Your task to perform on an android device: Do I have any events this weekend? Image 0: 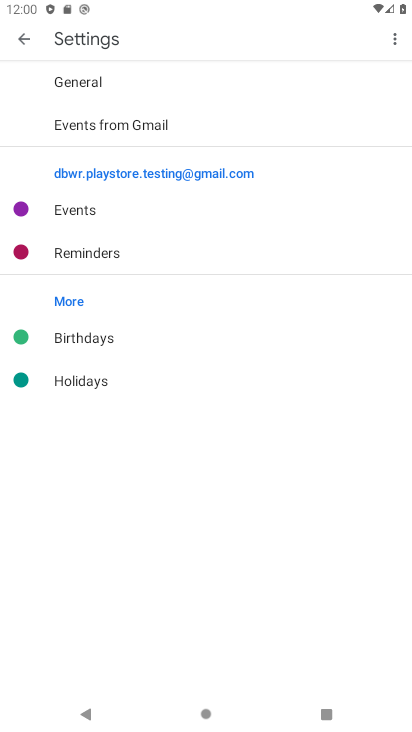
Step 0: press home button
Your task to perform on an android device: Do I have any events this weekend? Image 1: 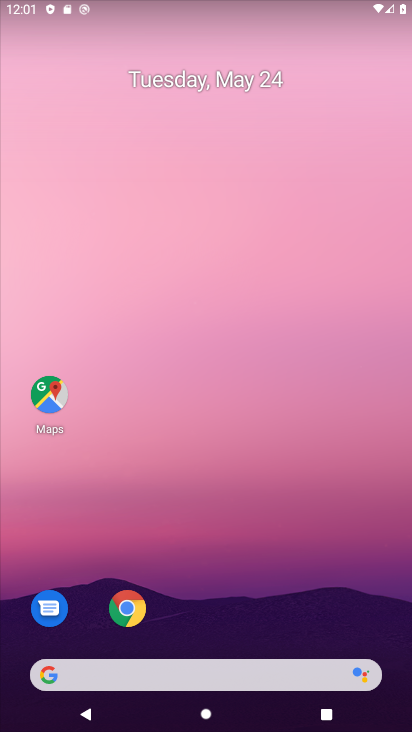
Step 1: drag from (227, 702) to (215, 287)
Your task to perform on an android device: Do I have any events this weekend? Image 2: 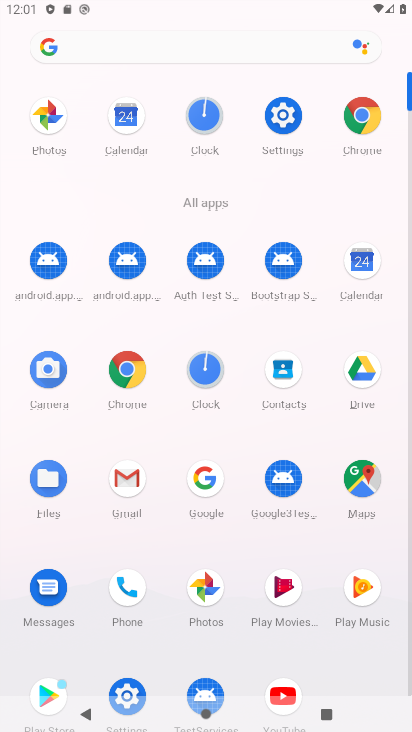
Step 2: click (370, 275)
Your task to perform on an android device: Do I have any events this weekend? Image 3: 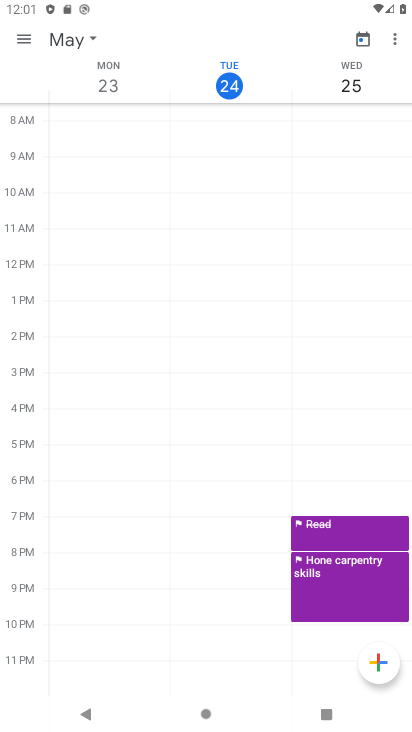
Step 3: click (37, 41)
Your task to perform on an android device: Do I have any events this weekend? Image 4: 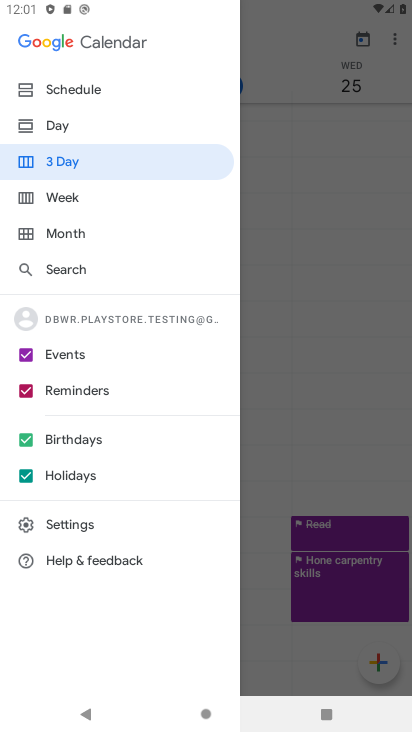
Step 4: click (98, 205)
Your task to perform on an android device: Do I have any events this weekend? Image 5: 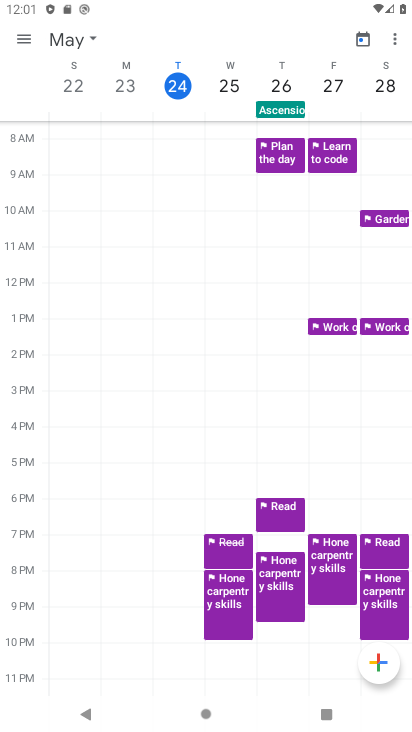
Step 5: task complete